Your task to perform on an android device: set an alarm Image 0: 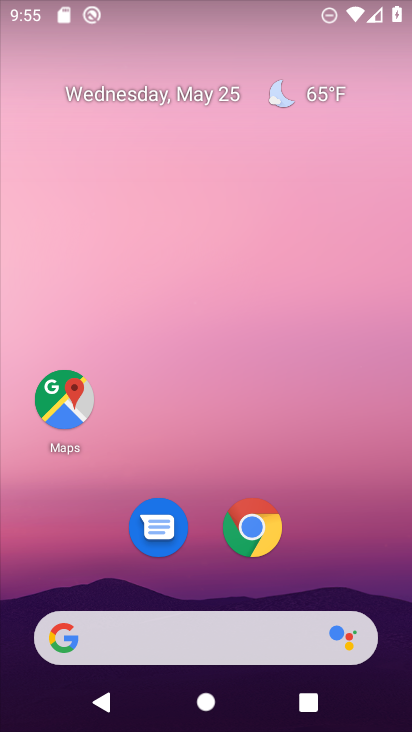
Step 0: drag from (332, 535) to (262, 43)
Your task to perform on an android device: set an alarm Image 1: 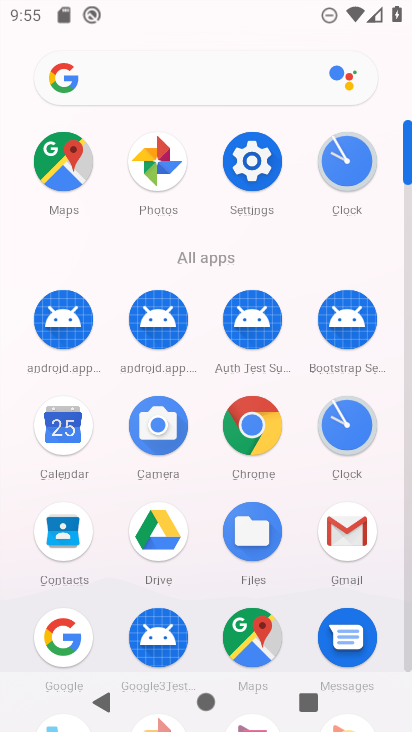
Step 1: click (349, 161)
Your task to perform on an android device: set an alarm Image 2: 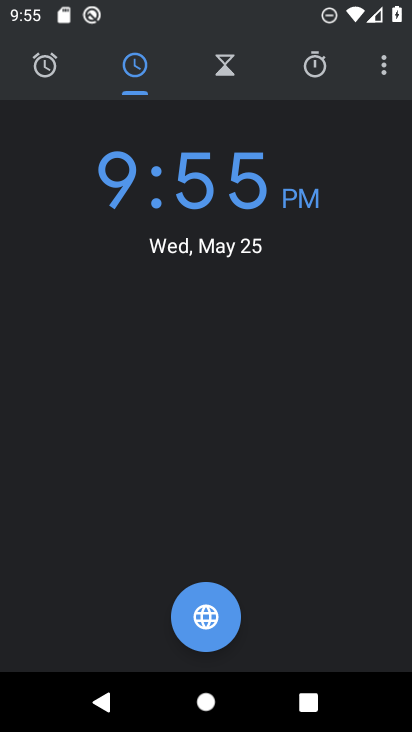
Step 2: click (46, 63)
Your task to perform on an android device: set an alarm Image 3: 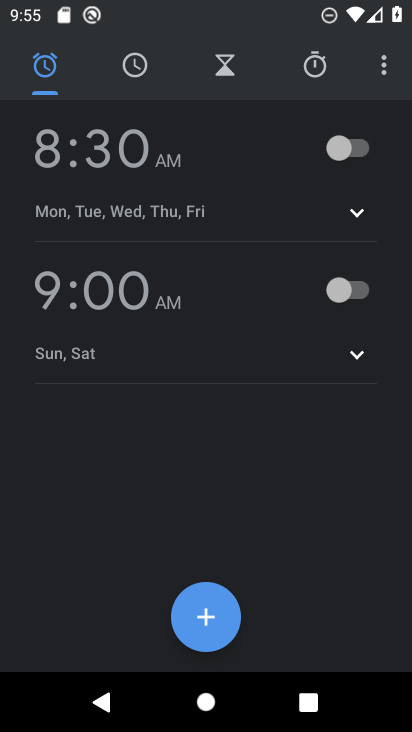
Step 3: click (205, 616)
Your task to perform on an android device: set an alarm Image 4: 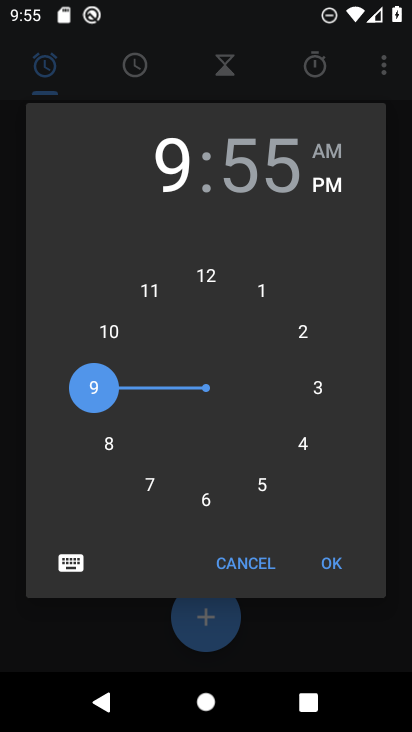
Step 4: click (114, 437)
Your task to perform on an android device: set an alarm Image 5: 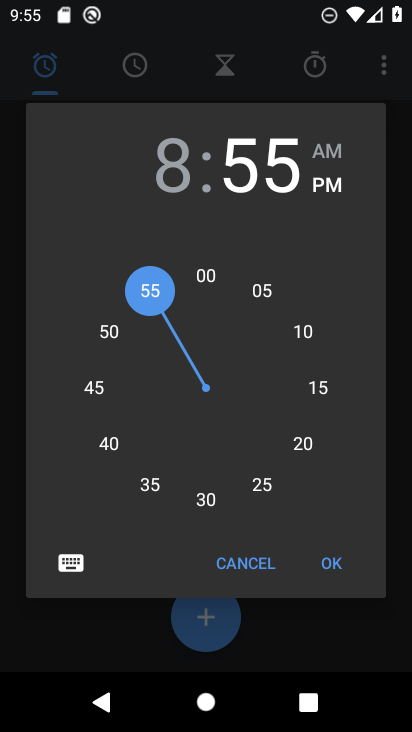
Step 5: click (152, 482)
Your task to perform on an android device: set an alarm Image 6: 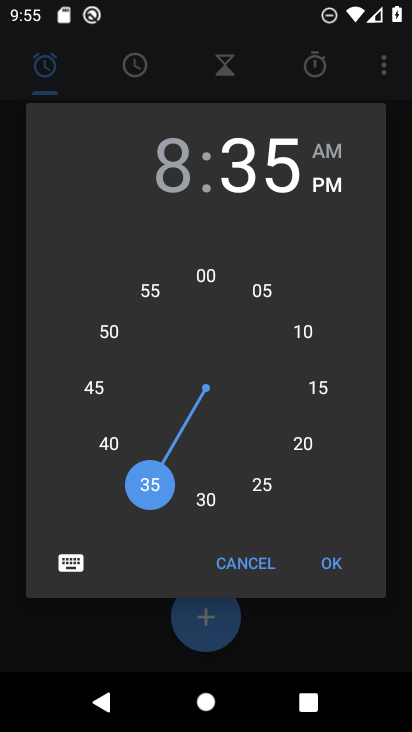
Step 6: click (335, 559)
Your task to perform on an android device: set an alarm Image 7: 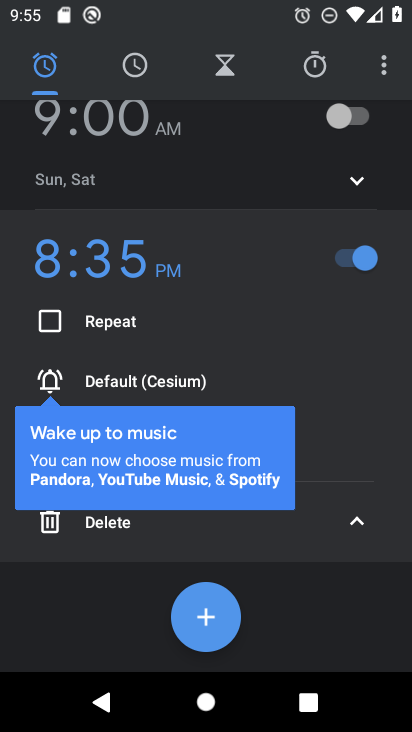
Step 7: click (362, 522)
Your task to perform on an android device: set an alarm Image 8: 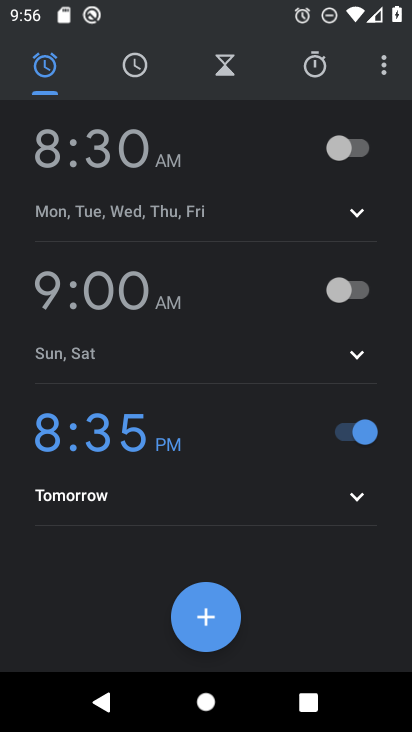
Step 8: task complete